Your task to perform on an android device: turn on javascript in the chrome app Image 0: 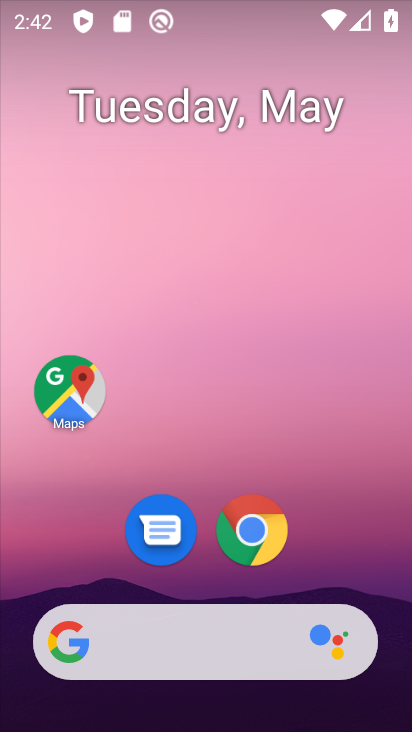
Step 0: click (255, 521)
Your task to perform on an android device: turn on javascript in the chrome app Image 1: 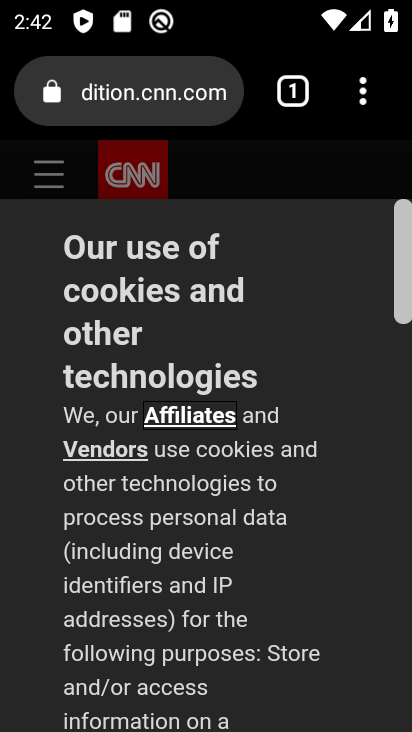
Step 1: click (361, 88)
Your task to perform on an android device: turn on javascript in the chrome app Image 2: 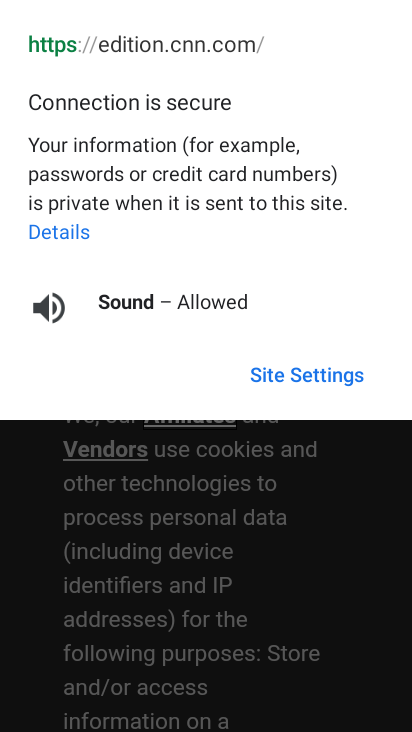
Step 2: press back button
Your task to perform on an android device: turn on javascript in the chrome app Image 3: 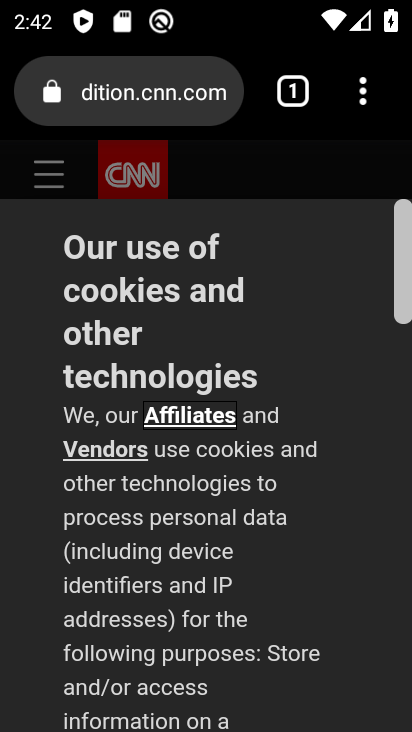
Step 3: click (367, 94)
Your task to perform on an android device: turn on javascript in the chrome app Image 4: 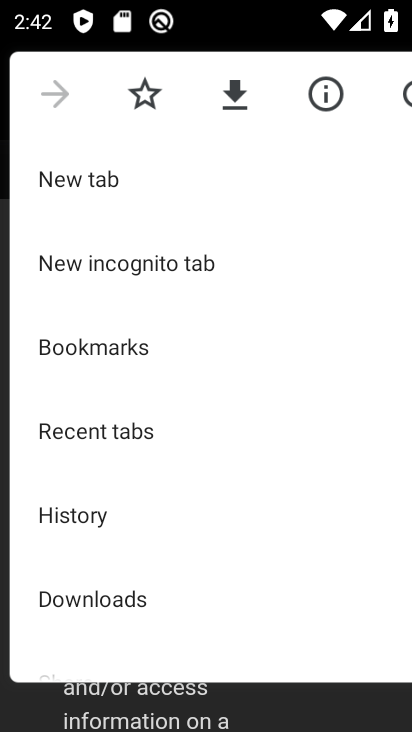
Step 4: drag from (110, 645) to (349, 106)
Your task to perform on an android device: turn on javascript in the chrome app Image 5: 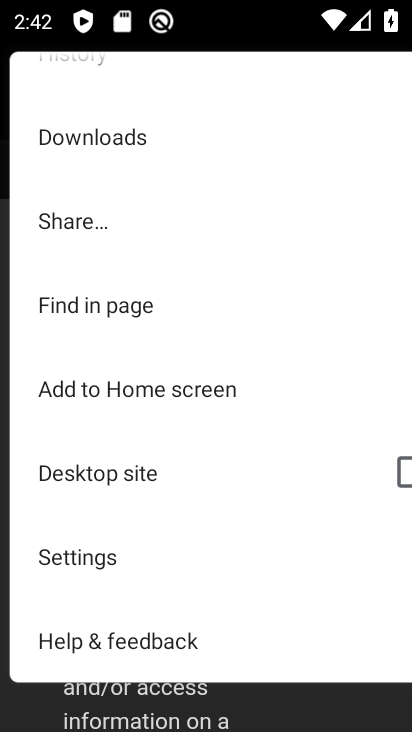
Step 5: drag from (91, 624) to (242, 224)
Your task to perform on an android device: turn on javascript in the chrome app Image 6: 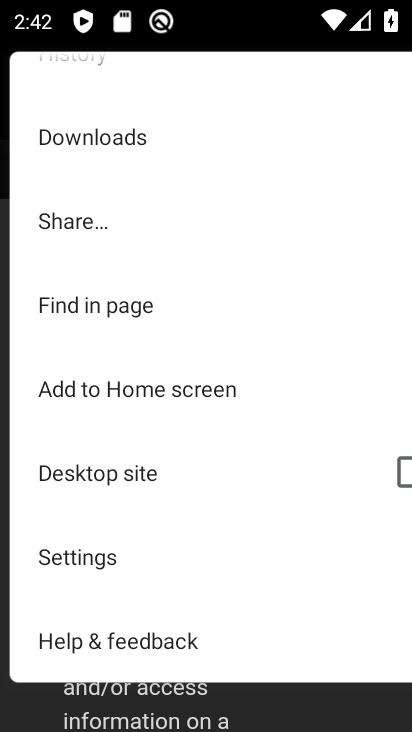
Step 6: click (86, 553)
Your task to perform on an android device: turn on javascript in the chrome app Image 7: 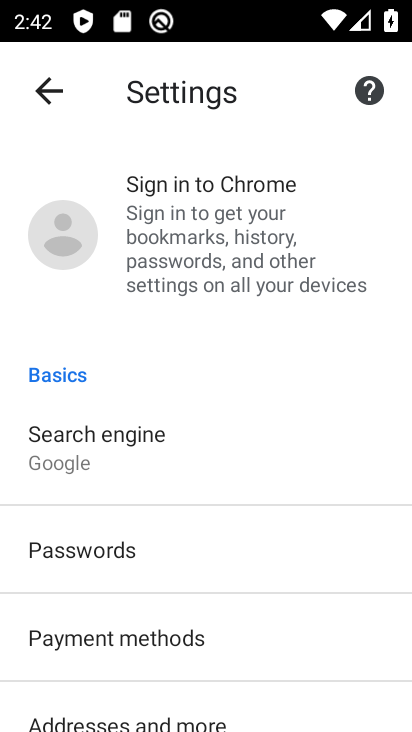
Step 7: drag from (10, 697) to (260, 147)
Your task to perform on an android device: turn on javascript in the chrome app Image 8: 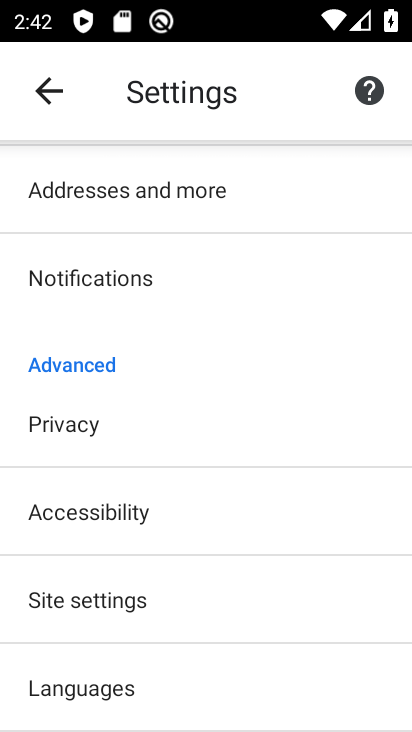
Step 8: click (67, 610)
Your task to perform on an android device: turn on javascript in the chrome app Image 9: 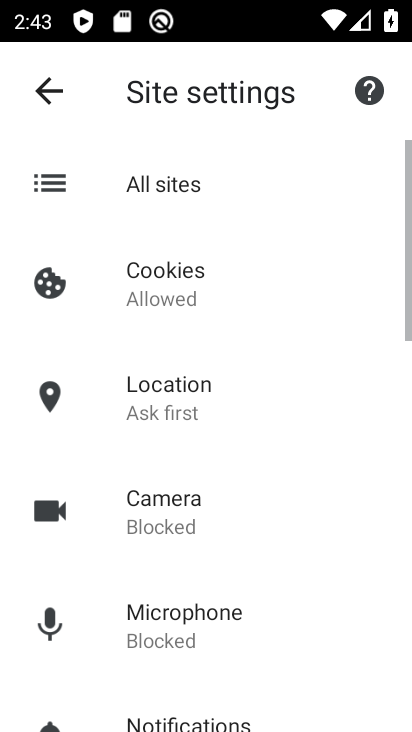
Step 9: drag from (16, 593) to (336, 85)
Your task to perform on an android device: turn on javascript in the chrome app Image 10: 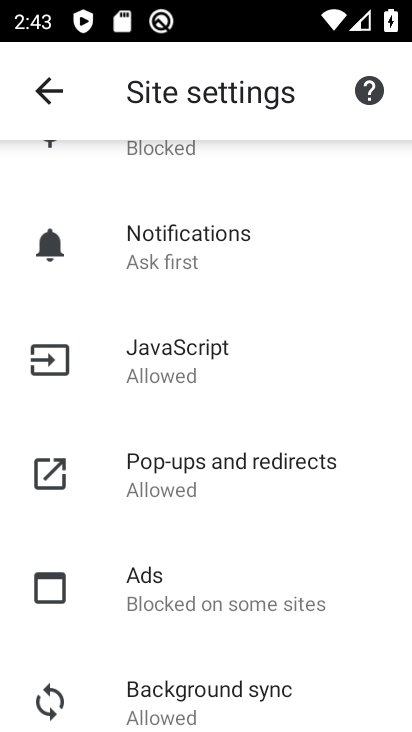
Step 10: click (178, 343)
Your task to perform on an android device: turn on javascript in the chrome app Image 11: 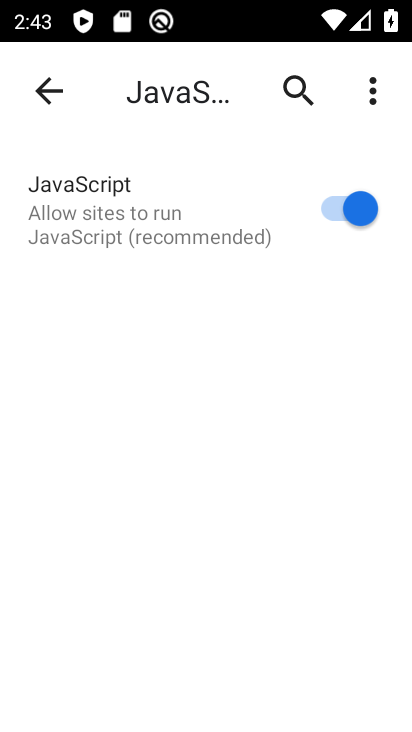
Step 11: task complete